Your task to perform on an android device: Open ESPN.com Image 0: 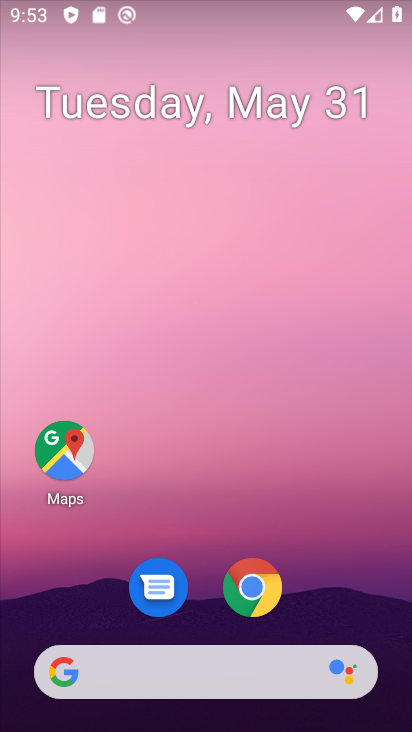
Step 0: press home button
Your task to perform on an android device: Open ESPN.com Image 1: 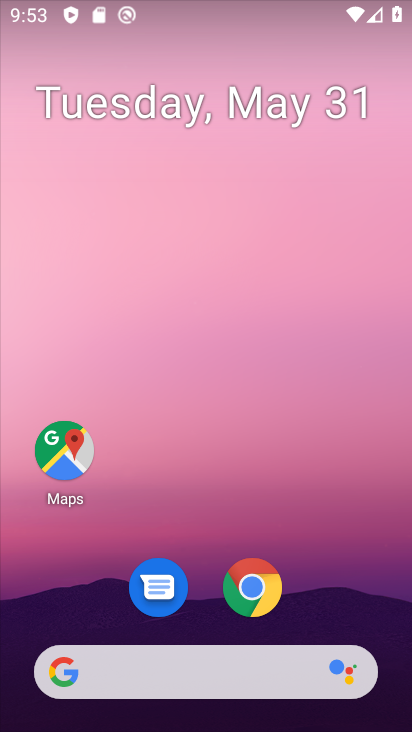
Step 1: click (255, 584)
Your task to perform on an android device: Open ESPN.com Image 2: 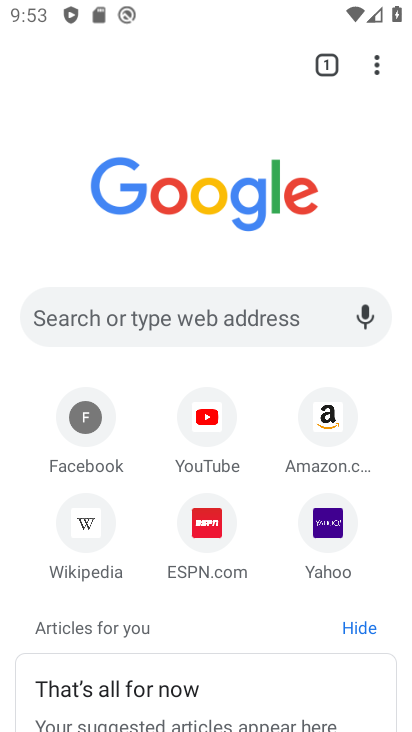
Step 2: click (202, 518)
Your task to perform on an android device: Open ESPN.com Image 3: 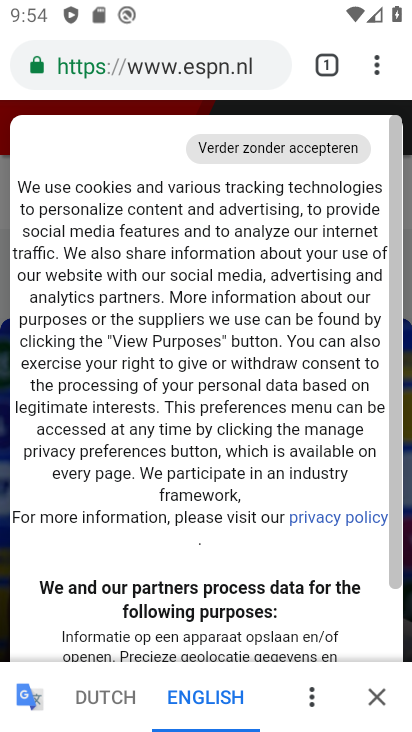
Step 3: drag from (262, 592) to (303, 140)
Your task to perform on an android device: Open ESPN.com Image 4: 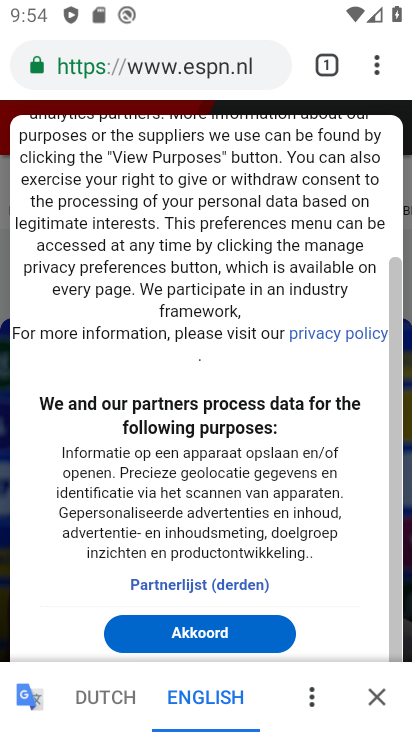
Step 4: click (203, 629)
Your task to perform on an android device: Open ESPN.com Image 5: 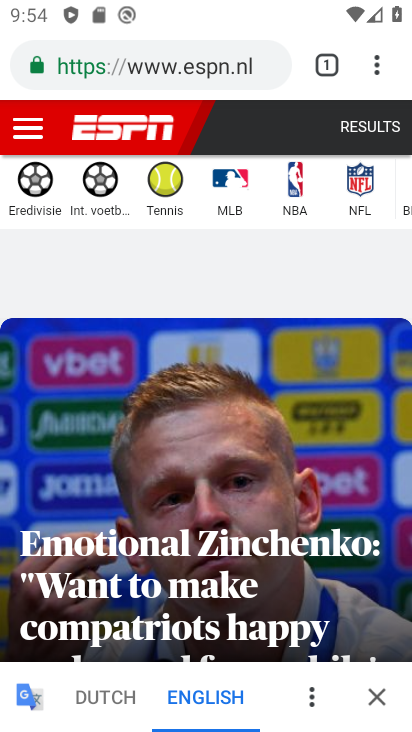
Step 5: task complete